Your task to perform on an android device: turn off translation in the chrome app Image 0: 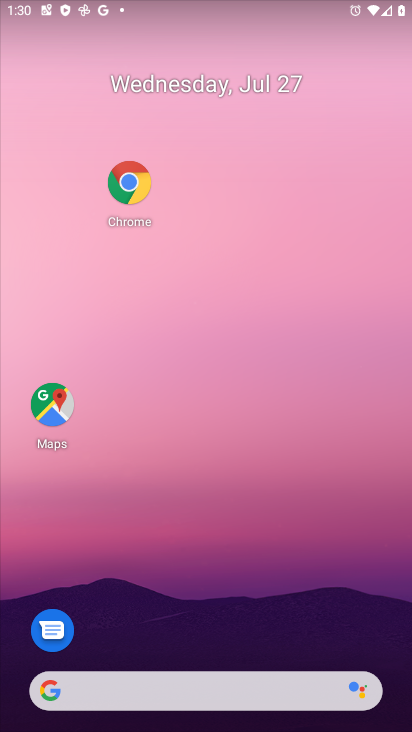
Step 0: click (122, 176)
Your task to perform on an android device: turn off translation in the chrome app Image 1: 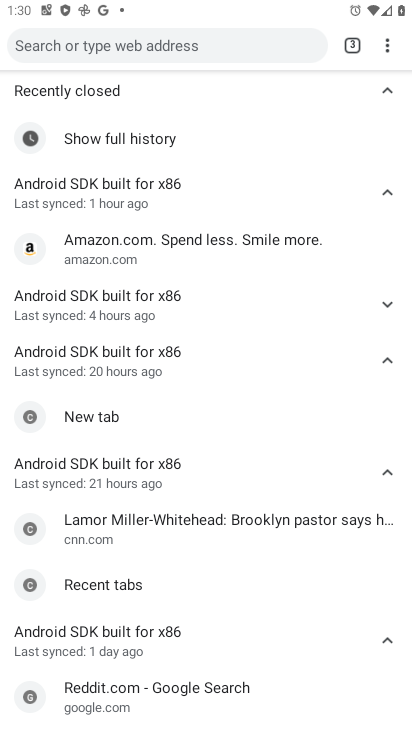
Step 1: click (389, 42)
Your task to perform on an android device: turn off translation in the chrome app Image 2: 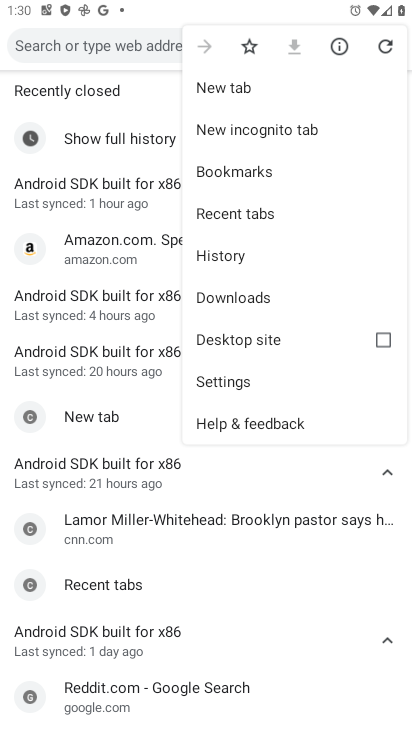
Step 2: click (252, 383)
Your task to perform on an android device: turn off translation in the chrome app Image 3: 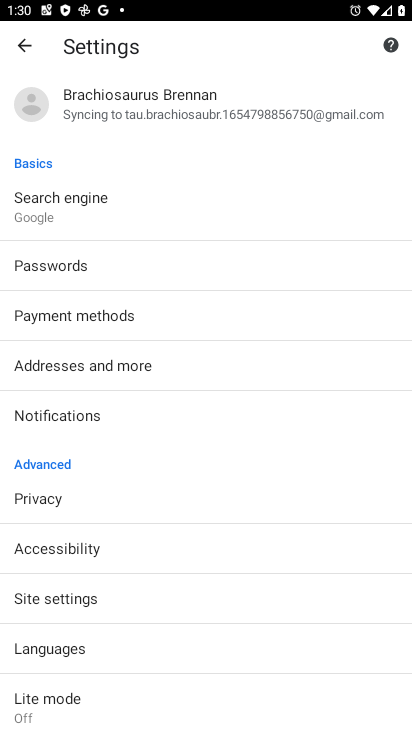
Step 3: click (74, 646)
Your task to perform on an android device: turn off translation in the chrome app Image 4: 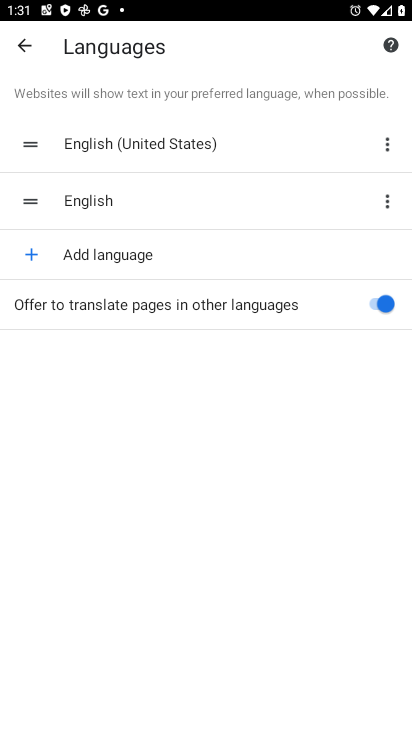
Step 4: click (386, 302)
Your task to perform on an android device: turn off translation in the chrome app Image 5: 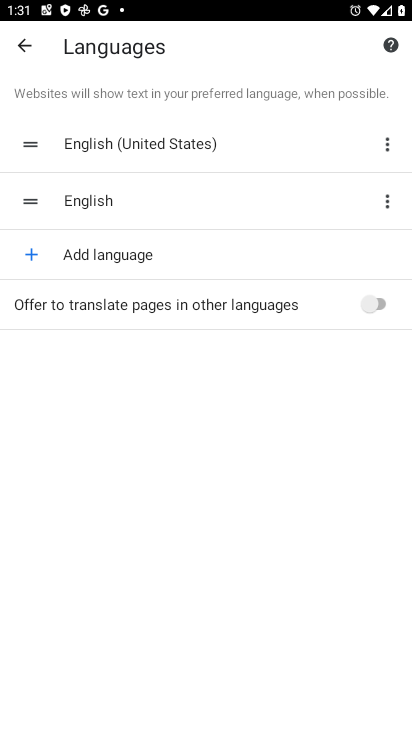
Step 5: task complete